Your task to perform on an android device: Check the settings for the Amazon Alexa app Image 0: 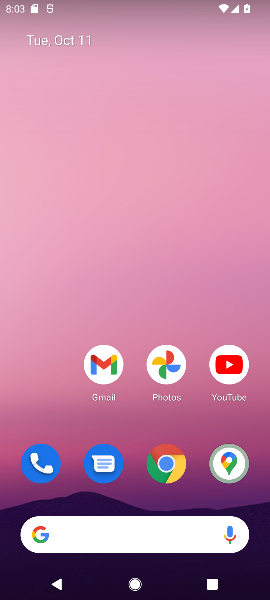
Step 0: drag from (74, 502) to (107, 137)
Your task to perform on an android device: Check the settings for the Amazon Alexa app Image 1: 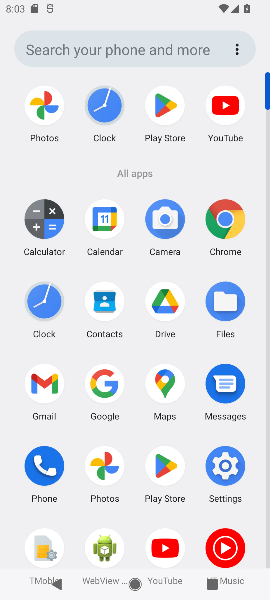
Step 1: click (105, 381)
Your task to perform on an android device: Check the settings for the Amazon Alexa app Image 2: 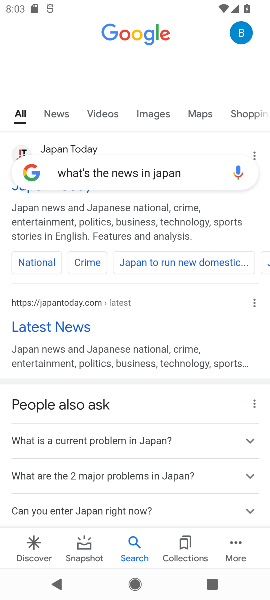
Step 2: click (121, 165)
Your task to perform on an android device: Check the settings for the Amazon Alexa app Image 3: 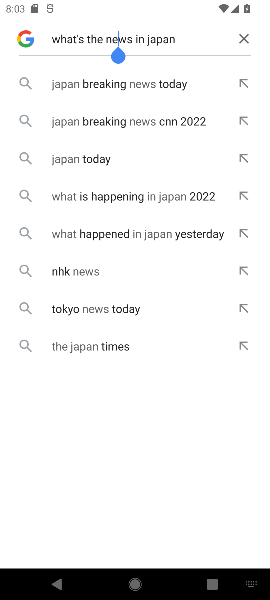
Step 3: click (237, 35)
Your task to perform on an android device: Check the settings for the Amazon Alexa app Image 4: 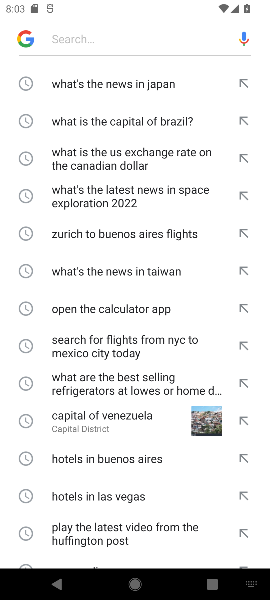
Step 4: click (110, 38)
Your task to perform on an android device: Check the settings for the Amazon Alexa app Image 5: 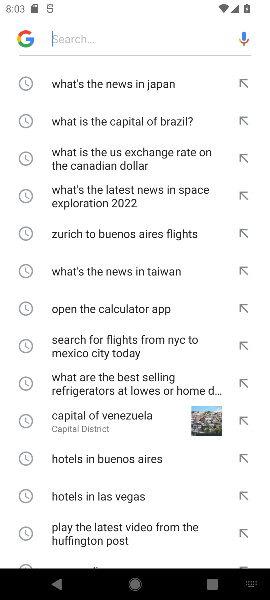
Step 5: type "Check the settings for the Amazon Alexa app "
Your task to perform on an android device: Check the settings for the Amazon Alexa app Image 6: 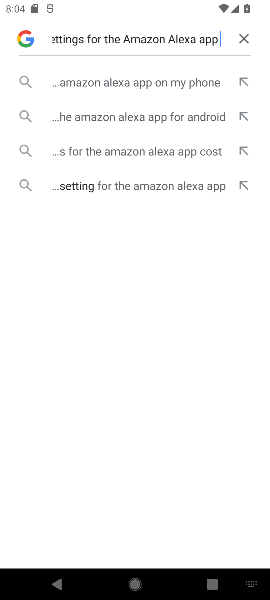
Step 6: click (160, 87)
Your task to perform on an android device: Check the settings for the Amazon Alexa app Image 7: 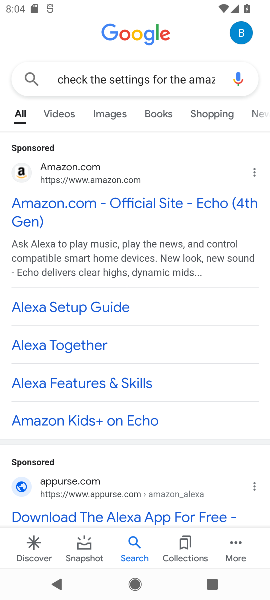
Step 7: click (164, 205)
Your task to perform on an android device: Check the settings for the Amazon Alexa app Image 8: 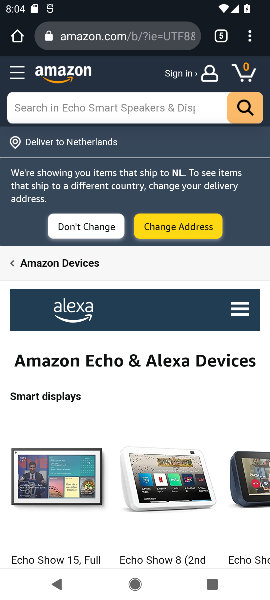
Step 8: drag from (125, 449) to (152, 189)
Your task to perform on an android device: Check the settings for the Amazon Alexa app Image 9: 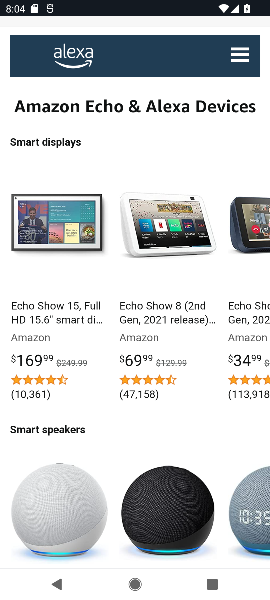
Step 9: drag from (112, 506) to (119, 221)
Your task to perform on an android device: Check the settings for the Amazon Alexa app Image 10: 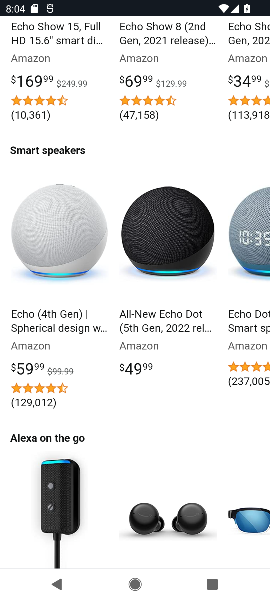
Step 10: drag from (93, 376) to (110, 92)
Your task to perform on an android device: Check the settings for the Amazon Alexa app Image 11: 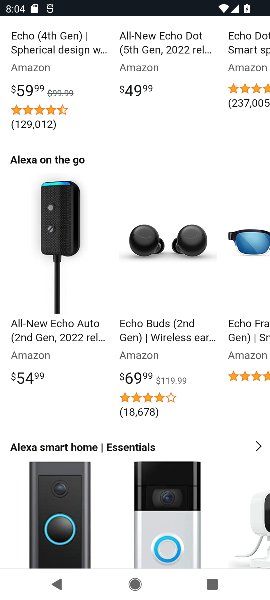
Step 11: drag from (114, 126) to (103, 385)
Your task to perform on an android device: Check the settings for the Amazon Alexa app Image 12: 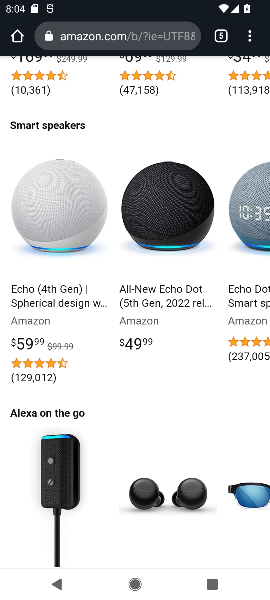
Step 12: drag from (122, 106) to (117, 543)
Your task to perform on an android device: Check the settings for the Amazon Alexa app Image 13: 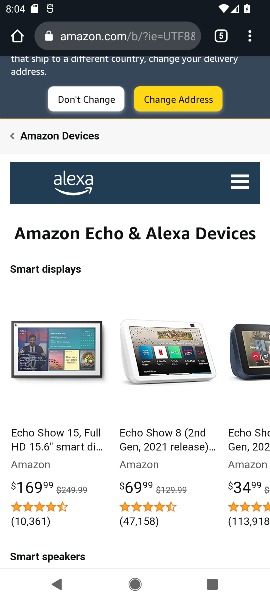
Step 13: press home button
Your task to perform on an android device: Check the settings for the Amazon Alexa app Image 14: 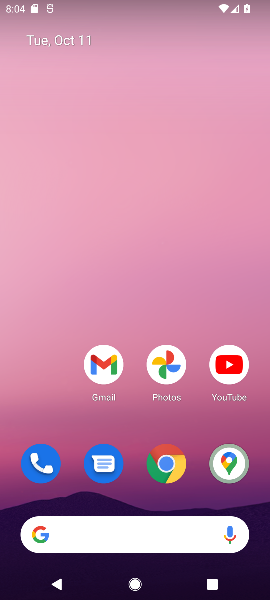
Step 14: drag from (107, 433) to (106, 68)
Your task to perform on an android device: Check the settings for the Amazon Alexa app Image 15: 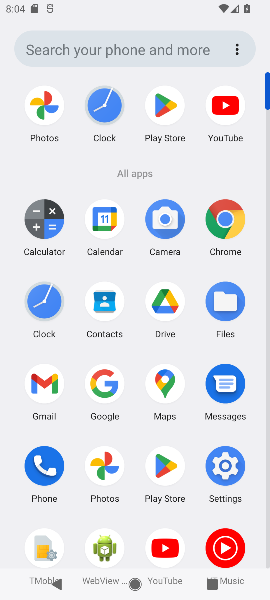
Step 15: click (106, 382)
Your task to perform on an android device: Check the settings for the Amazon Alexa app Image 16: 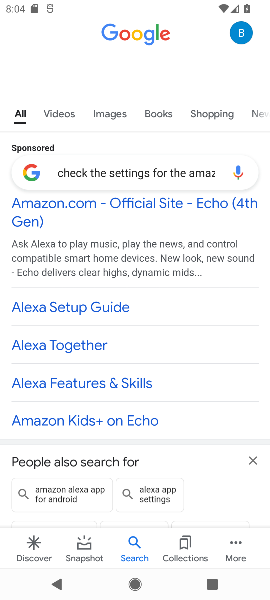
Step 16: click (161, 197)
Your task to perform on an android device: Check the settings for the Amazon Alexa app Image 17: 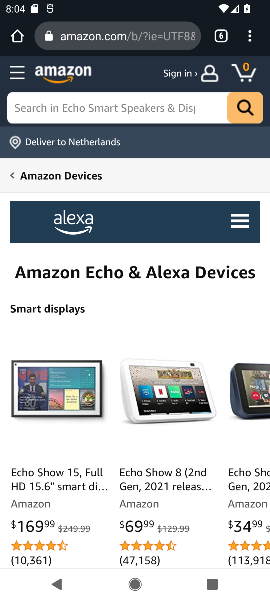
Step 17: task complete